Your task to perform on an android device: Open calendar and show me the first week of next month Image 0: 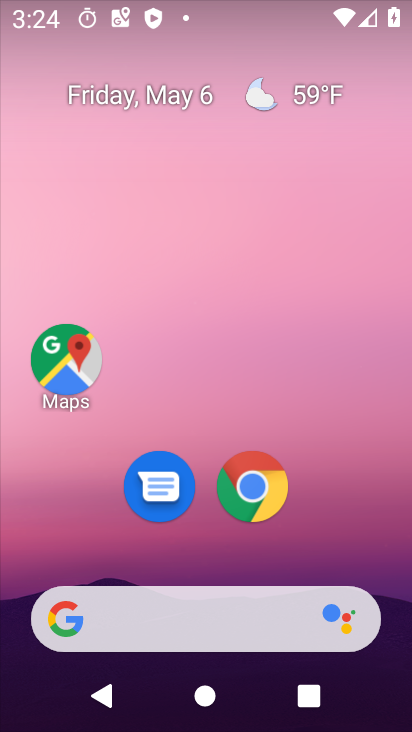
Step 0: drag from (341, 518) to (337, 6)
Your task to perform on an android device: Open calendar and show me the first week of next month Image 1: 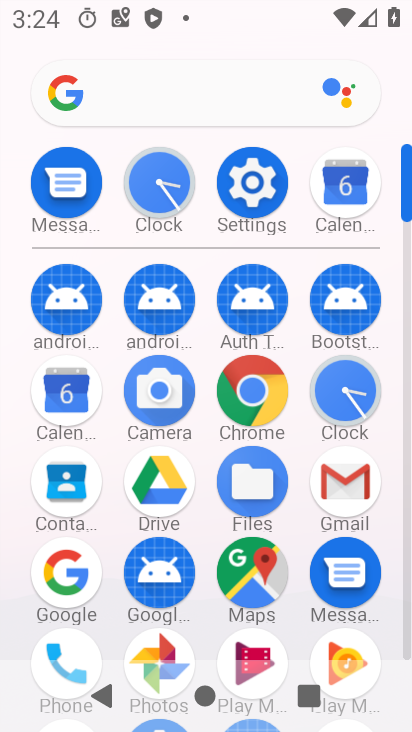
Step 1: click (60, 394)
Your task to perform on an android device: Open calendar and show me the first week of next month Image 2: 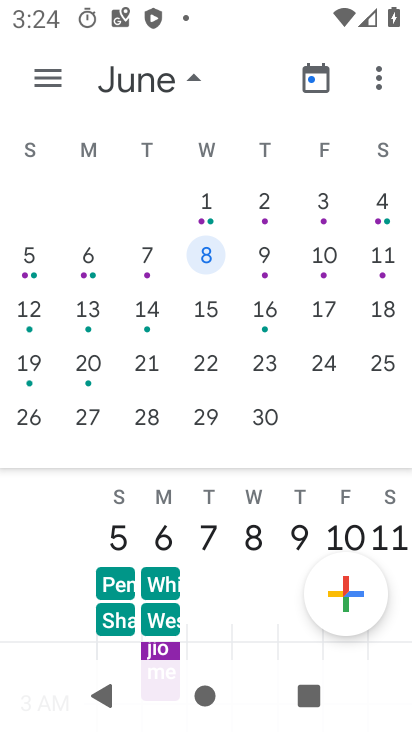
Step 2: click (204, 190)
Your task to perform on an android device: Open calendar and show me the first week of next month Image 3: 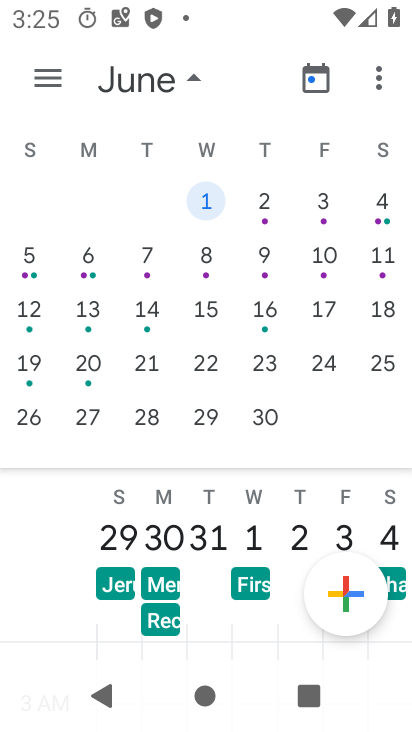
Step 3: task complete